Your task to perform on an android device: turn off data saver in the chrome app Image 0: 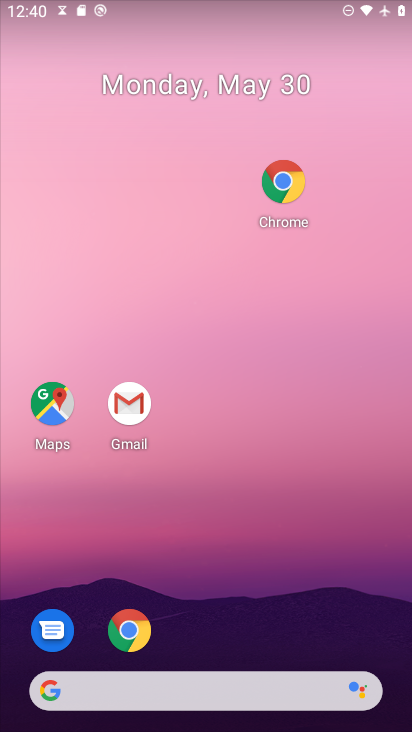
Step 0: drag from (285, 708) to (236, 196)
Your task to perform on an android device: turn off data saver in the chrome app Image 1: 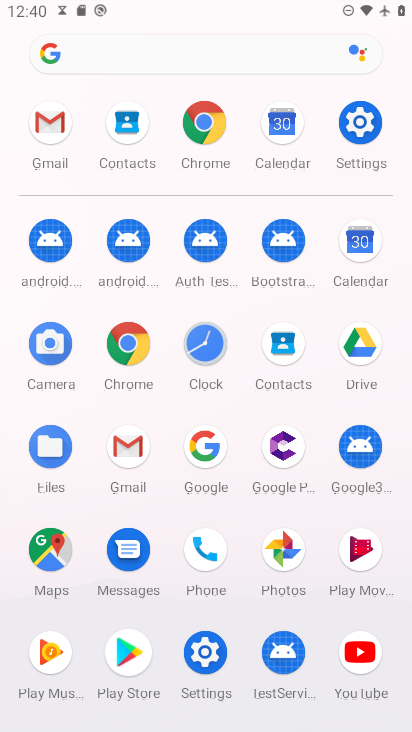
Step 1: click (200, 115)
Your task to perform on an android device: turn off data saver in the chrome app Image 2: 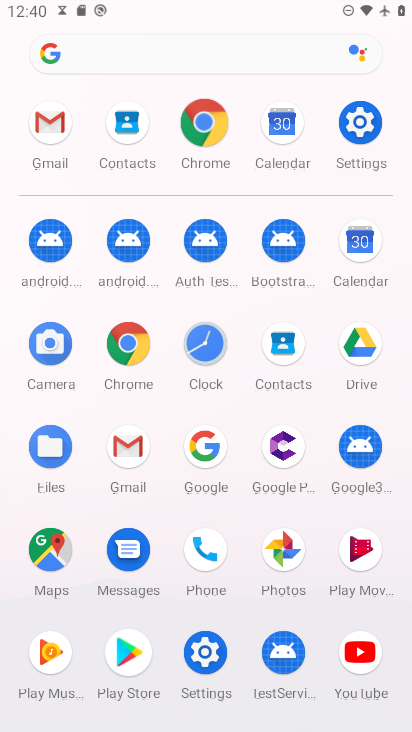
Step 2: click (205, 115)
Your task to perform on an android device: turn off data saver in the chrome app Image 3: 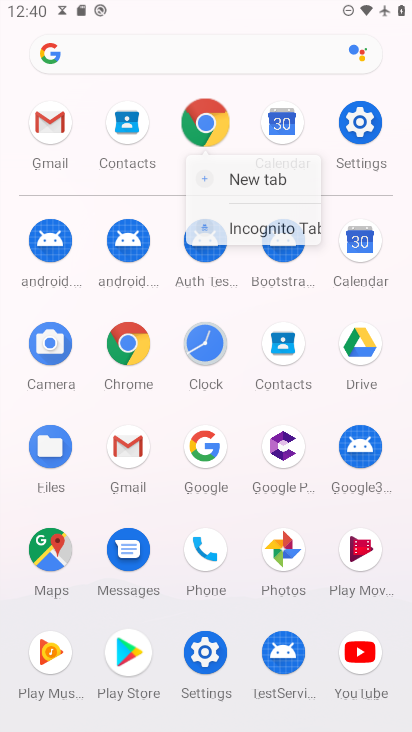
Step 3: click (205, 115)
Your task to perform on an android device: turn off data saver in the chrome app Image 4: 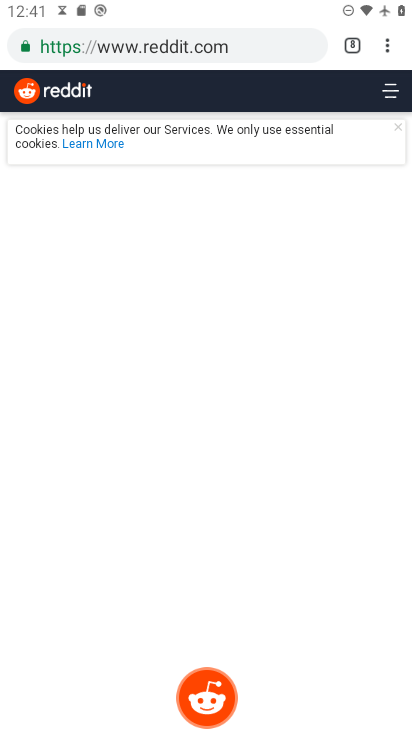
Step 4: click (387, 52)
Your task to perform on an android device: turn off data saver in the chrome app Image 5: 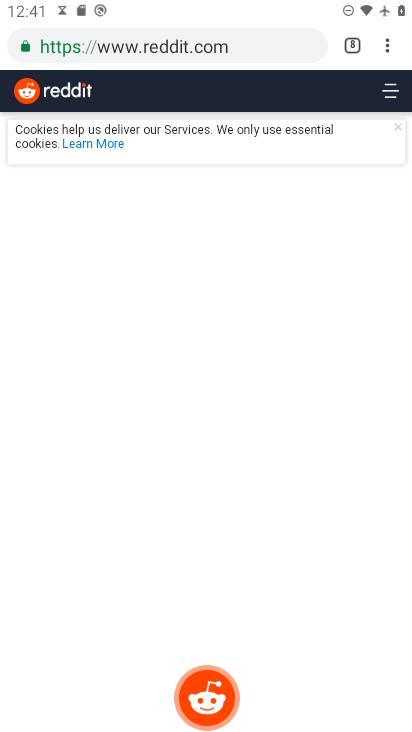
Step 5: click (384, 42)
Your task to perform on an android device: turn off data saver in the chrome app Image 6: 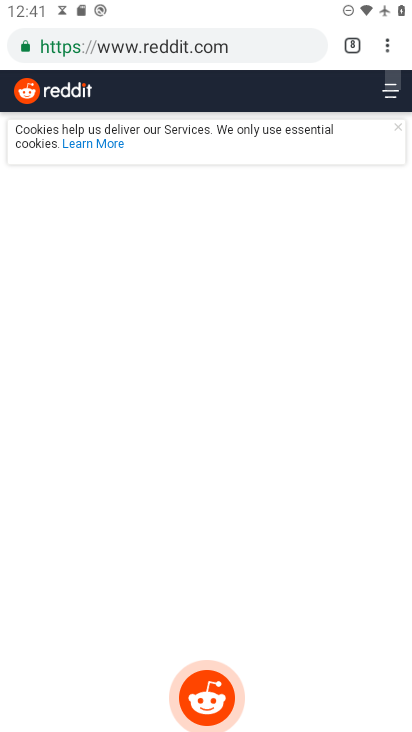
Step 6: drag from (382, 44) to (244, 545)
Your task to perform on an android device: turn off data saver in the chrome app Image 7: 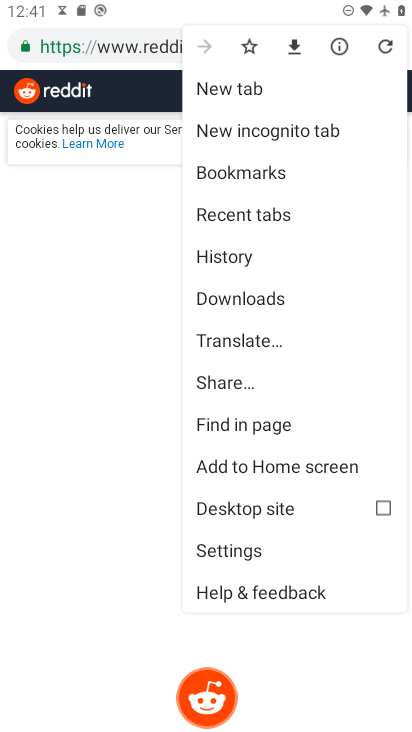
Step 7: click (246, 546)
Your task to perform on an android device: turn off data saver in the chrome app Image 8: 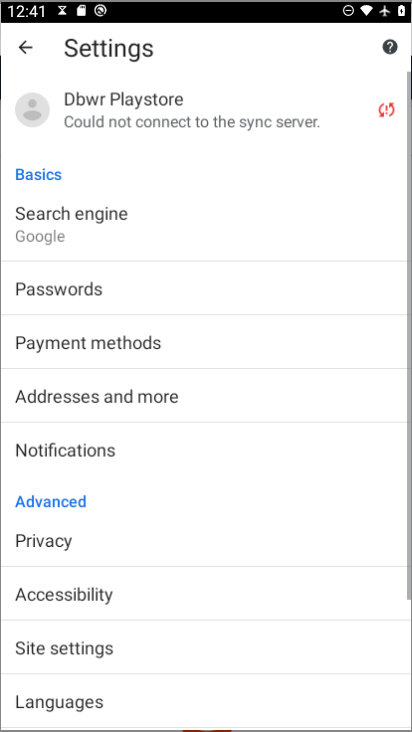
Step 8: click (251, 546)
Your task to perform on an android device: turn off data saver in the chrome app Image 9: 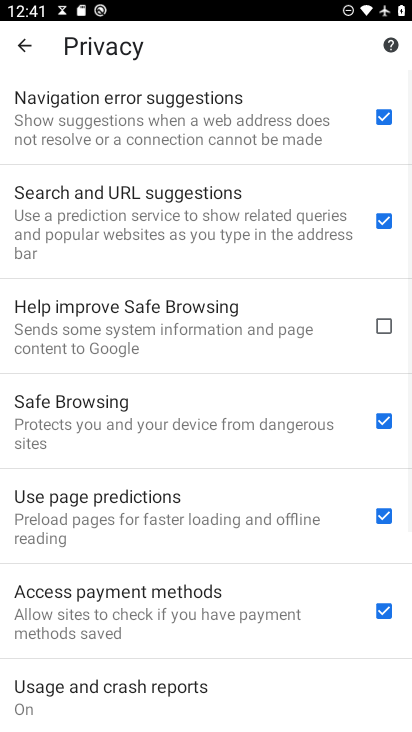
Step 9: click (23, 54)
Your task to perform on an android device: turn off data saver in the chrome app Image 10: 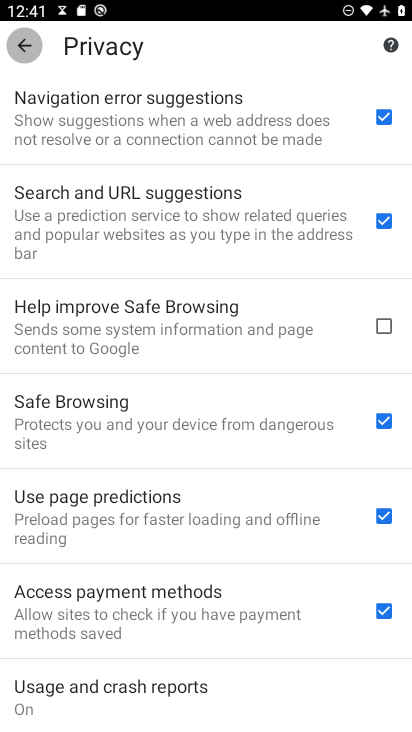
Step 10: click (27, 48)
Your task to perform on an android device: turn off data saver in the chrome app Image 11: 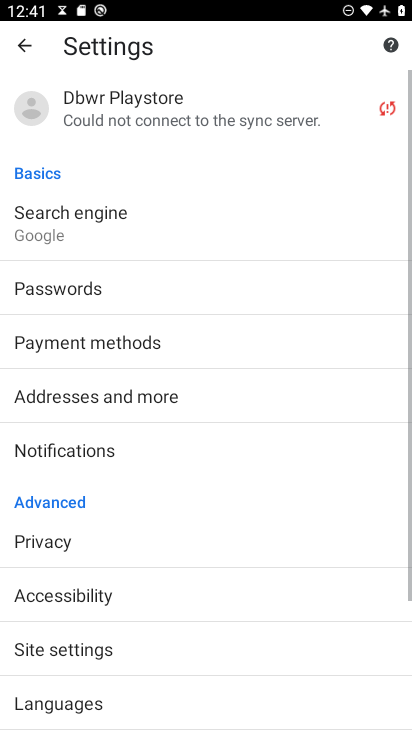
Step 11: drag from (89, 599) to (81, 116)
Your task to perform on an android device: turn off data saver in the chrome app Image 12: 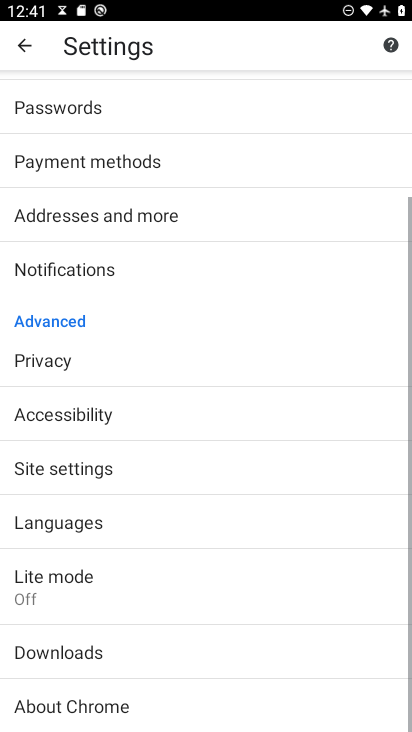
Step 12: drag from (79, 588) to (110, 231)
Your task to perform on an android device: turn off data saver in the chrome app Image 13: 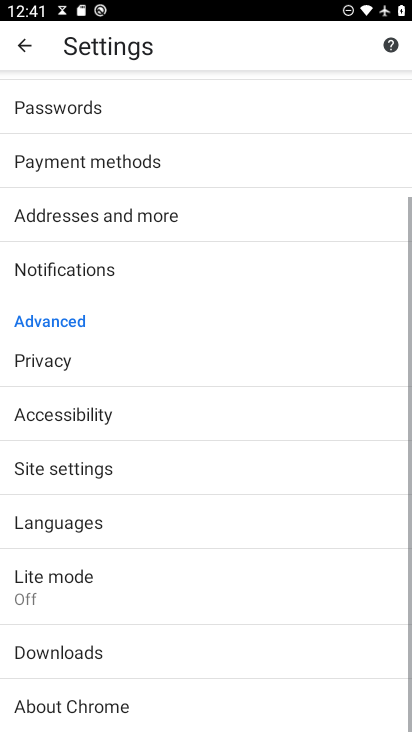
Step 13: click (51, 474)
Your task to perform on an android device: turn off data saver in the chrome app Image 14: 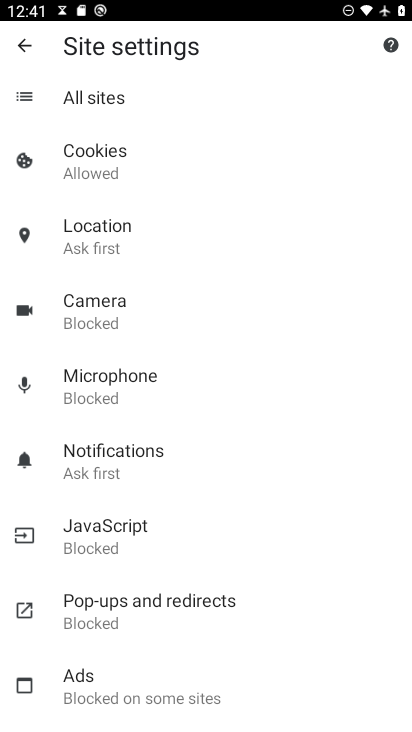
Step 14: click (16, 50)
Your task to perform on an android device: turn off data saver in the chrome app Image 15: 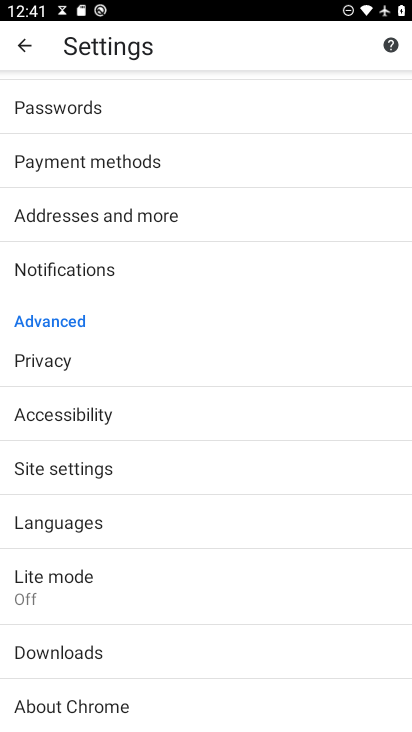
Step 15: click (228, 362)
Your task to perform on an android device: turn off data saver in the chrome app Image 16: 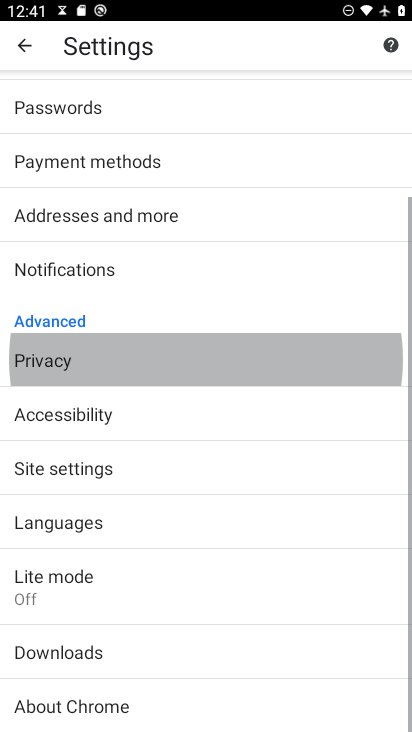
Step 16: click (240, 258)
Your task to perform on an android device: turn off data saver in the chrome app Image 17: 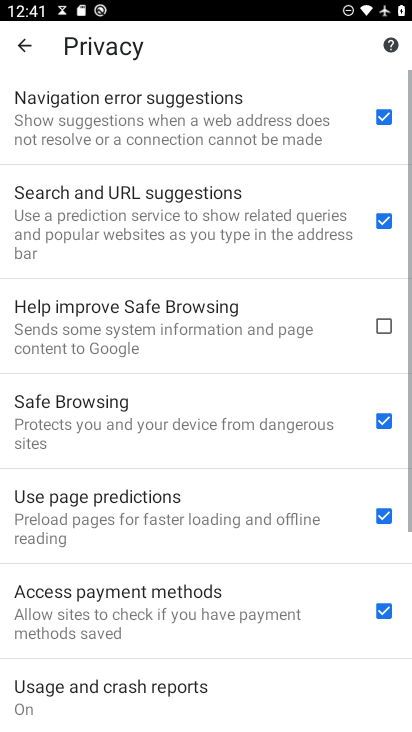
Step 17: click (245, 254)
Your task to perform on an android device: turn off data saver in the chrome app Image 18: 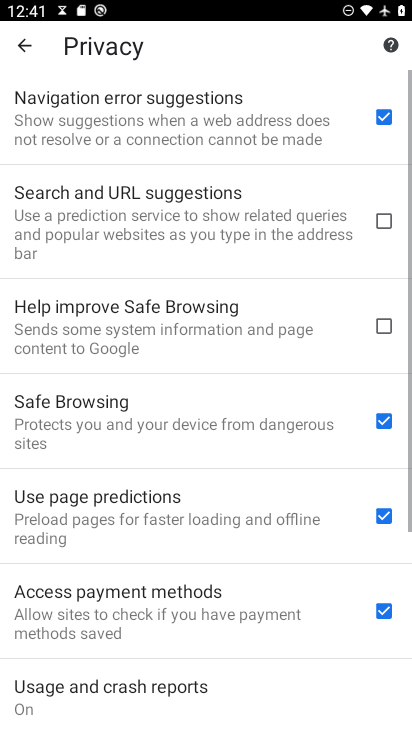
Step 18: click (16, 43)
Your task to perform on an android device: turn off data saver in the chrome app Image 19: 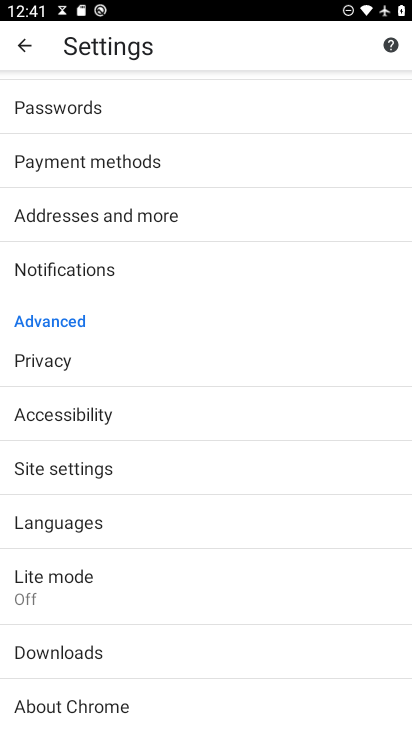
Step 19: click (47, 565)
Your task to perform on an android device: turn off data saver in the chrome app Image 20: 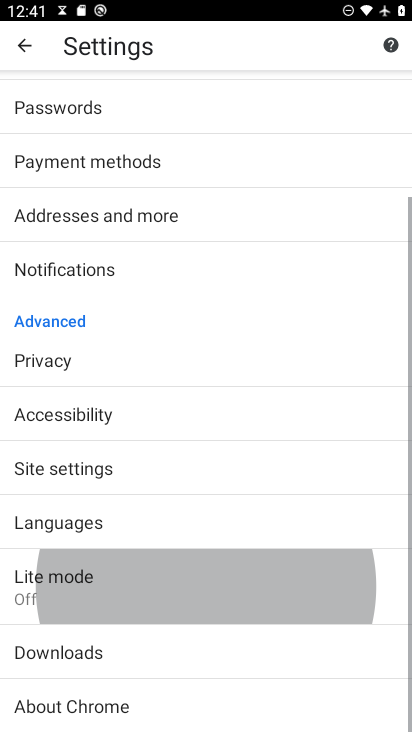
Step 20: click (48, 566)
Your task to perform on an android device: turn off data saver in the chrome app Image 21: 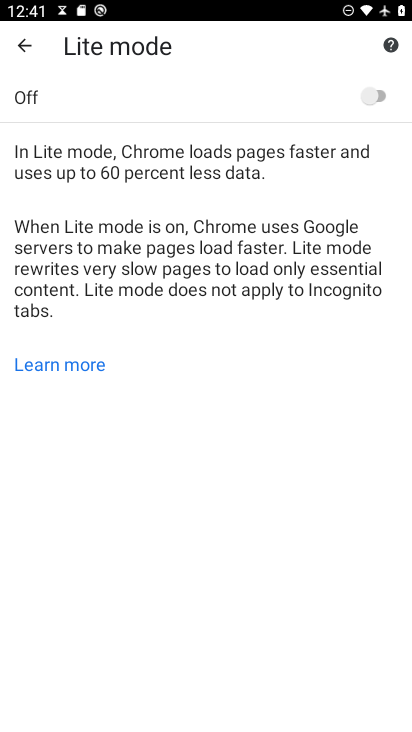
Step 21: task complete